Your task to perform on an android device: turn on data saver in the chrome app Image 0: 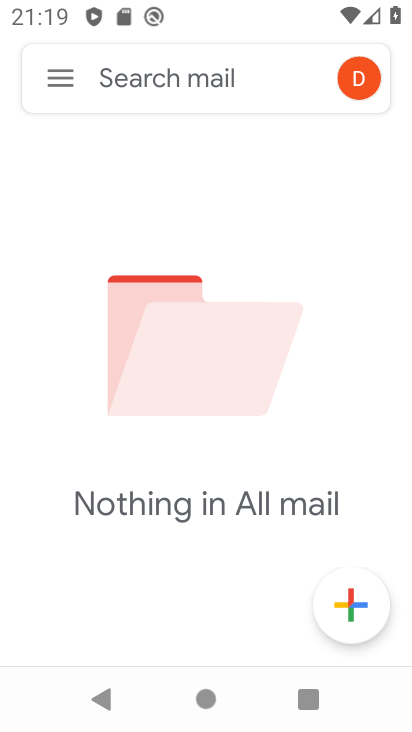
Step 0: press home button
Your task to perform on an android device: turn on data saver in the chrome app Image 1: 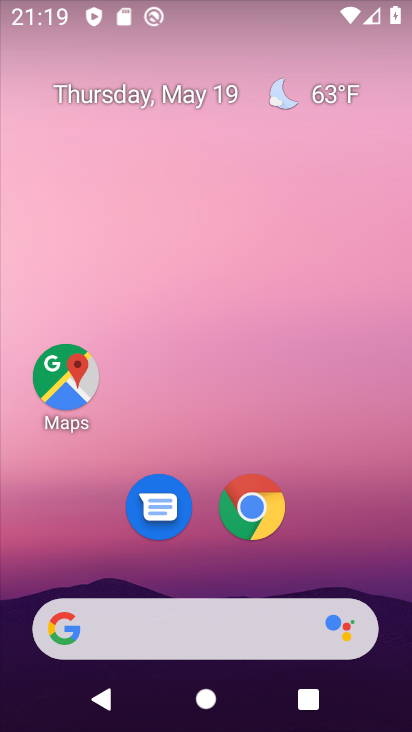
Step 1: drag from (364, 546) to (255, 127)
Your task to perform on an android device: turn on data saver in the chrome app Image 2: 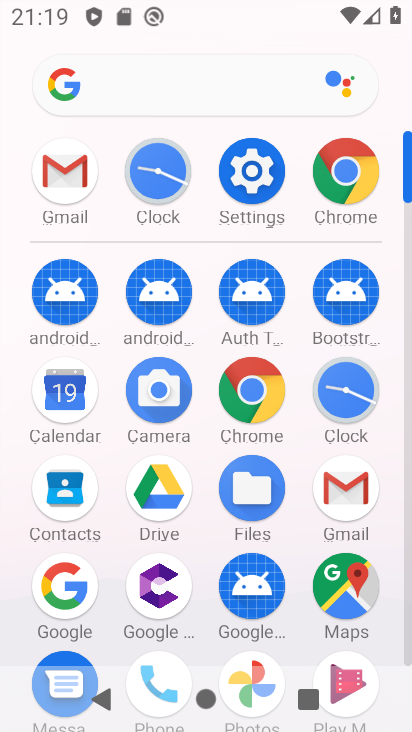
Step 2: click (338, 162)
Your task to perform on an android device: turn on data saver in the chrome app Image 3: 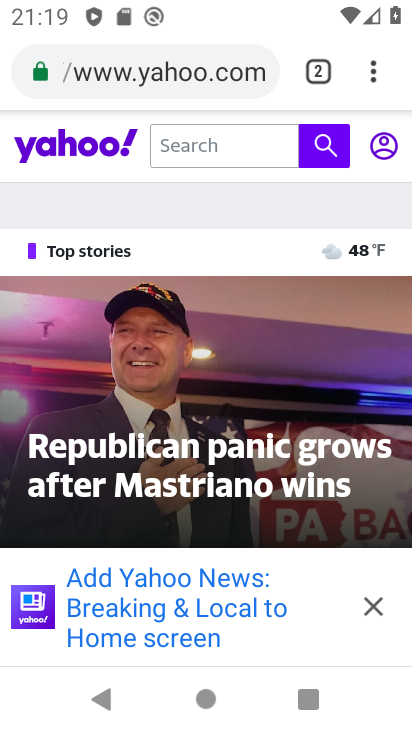
Step 3: click (361, 69)
Your task to perform on an android device: turn on data saver in the chrome app Image 4: 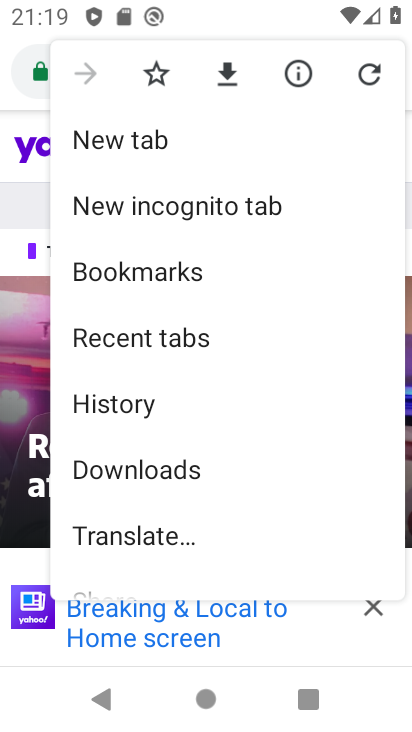
Step 4: drag from (197, 565) to (175, 194)
Your task to perform on an android device: turn on data saver in the chrome app Image 5: 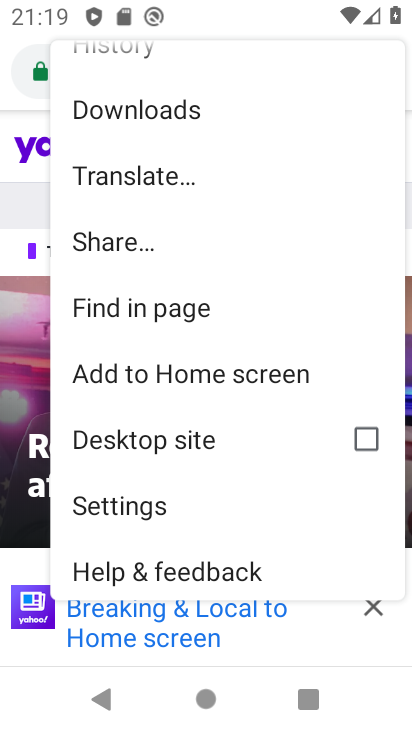
Step 5: click (205, 505)
Your task to perform on an android device: turn on data saver in the chrome app Image 6: 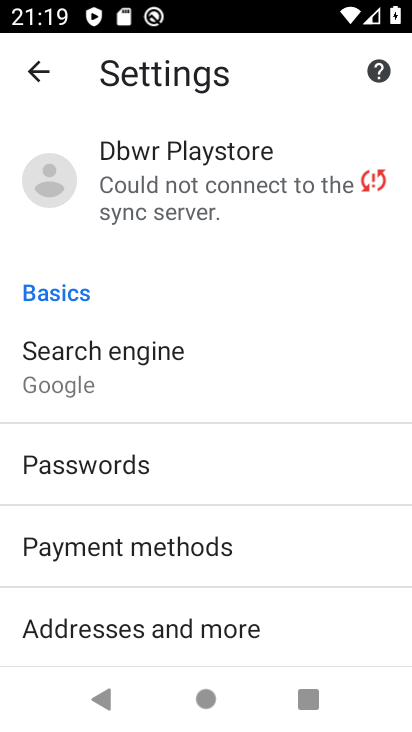
Step 6: drag from (270, 623) to (254, 209)
Your task to perform on an android device: turn on data saver in the chrome app Image 7: 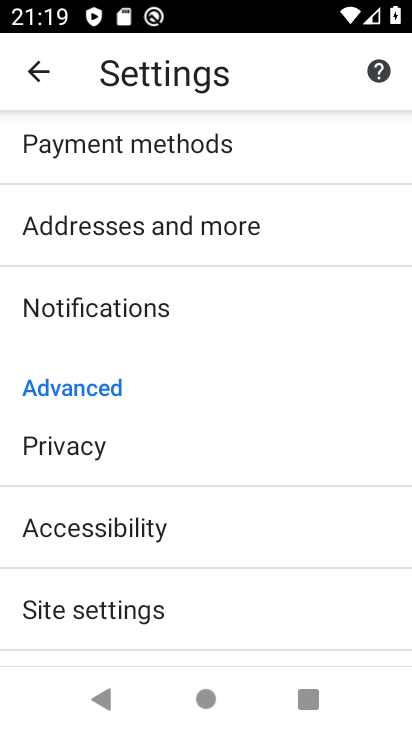
Step 7: drag from (302, 524) to (273, 221)
Your task to perform on an android device: turn on data saver in the chrome app Image 8: 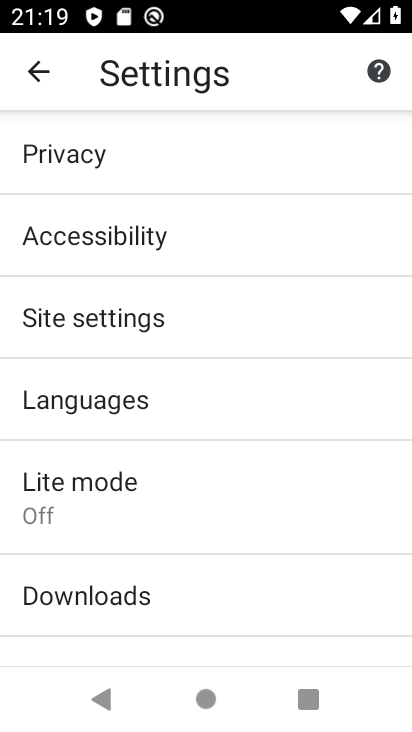
Step 8: click (214, 489)
Your task to perform on an android device: turn on data saver in the chrome app Image 9: 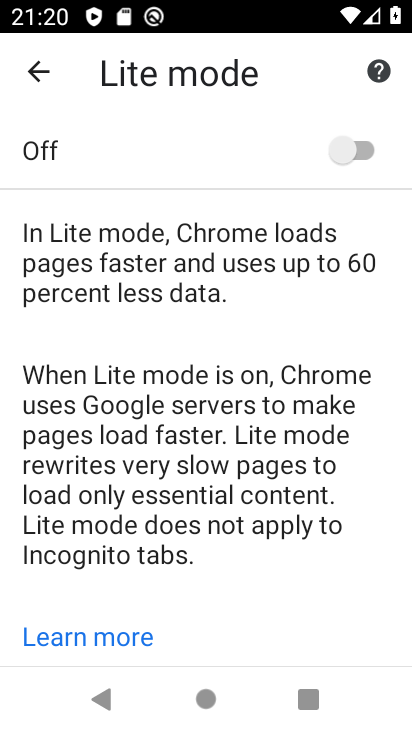
Step 9: click (368, 156)
Your task to perform on an android device: turn on data saver in the chrome app Image 10: 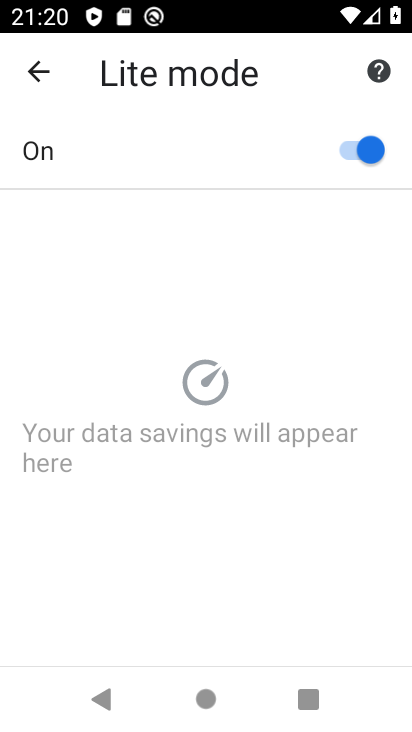
Step 10: task complete